Your task to perform on an android device: Check the weather Image 0: 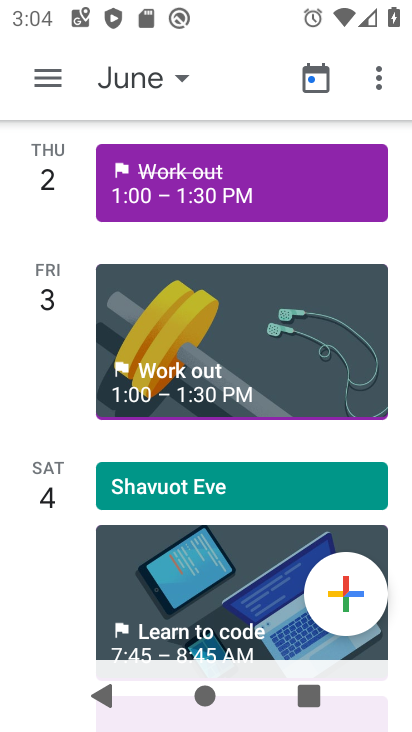
Step 0: press home button
Your task to perform on an android device: Check the weather Image 1: 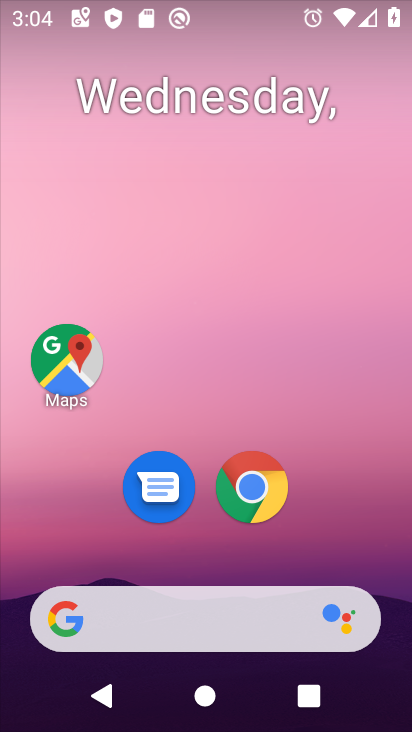
Step 1: click (230, 603)
Your task to perform on an android device: Check the weather Image 2: 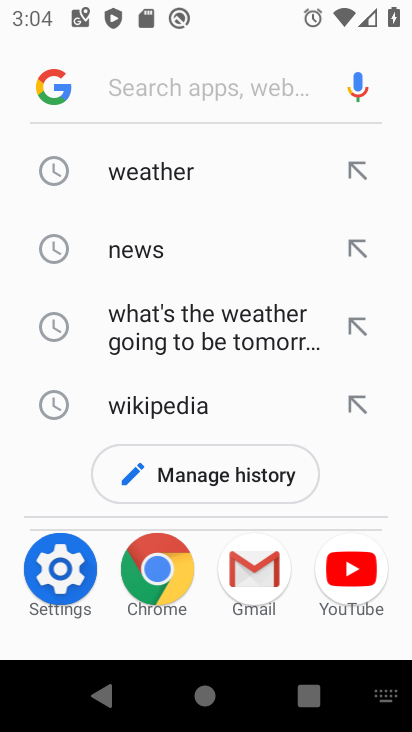
Step 2: click (177, 175)
Your task to perform on an android device: Check the weather Image 3: 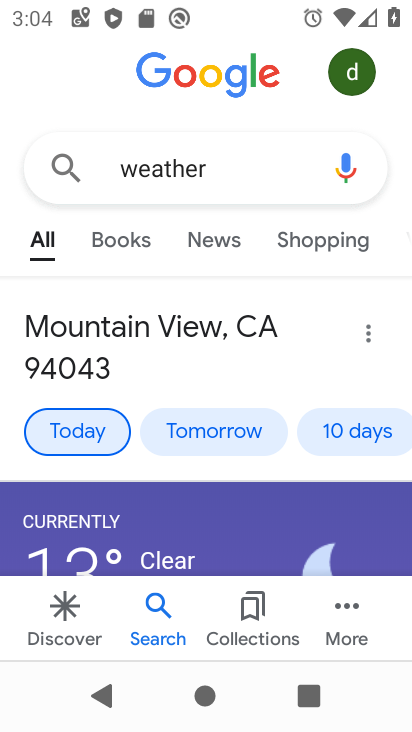
Step 3: task complete